Your task to perform on an android device: Open the calendar and show me this week's events Image 0: 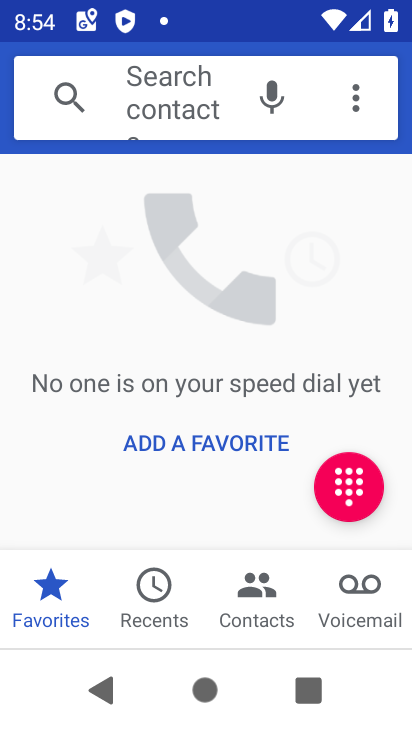
Step 0: press home button
Your task to perform on an android device: Open the calendar and show me this week's events Image 1: 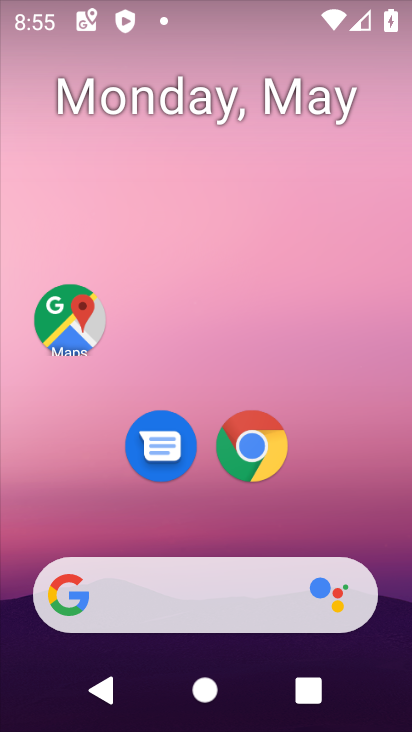
Step 1: drag from (202, 528) to (202, 10)
Your task to perform on an android device: Open the calendar and show me this week's events Image 2: 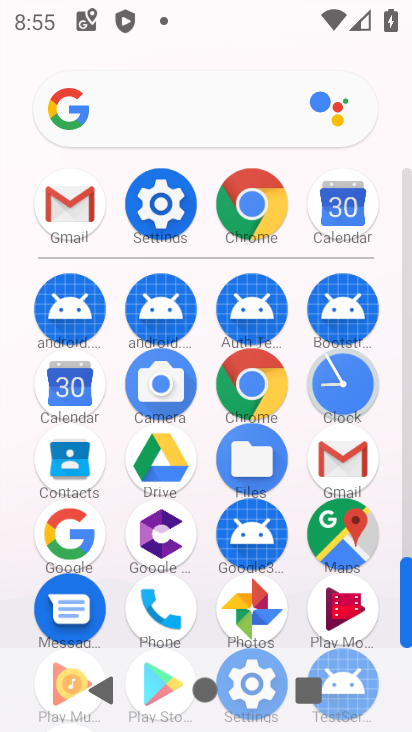
Step 2: click (69, 383)
Your task to perform on an android device: Open the calendar and show me this week's events Image 3: 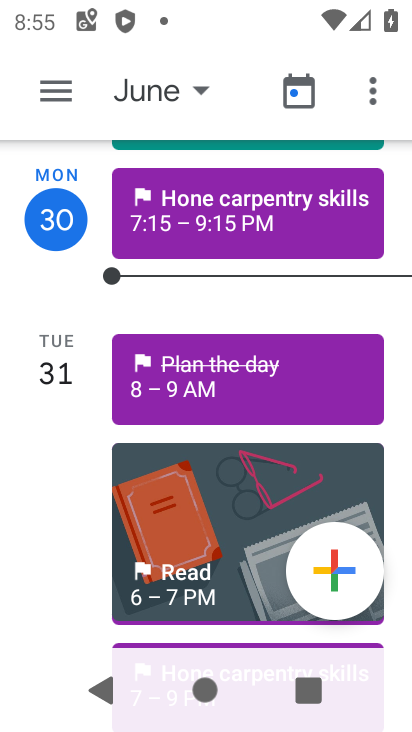
Step 3: click (53, 84)
Your task to perform on an android device: Open the calendar and show me this week's events Image 4: 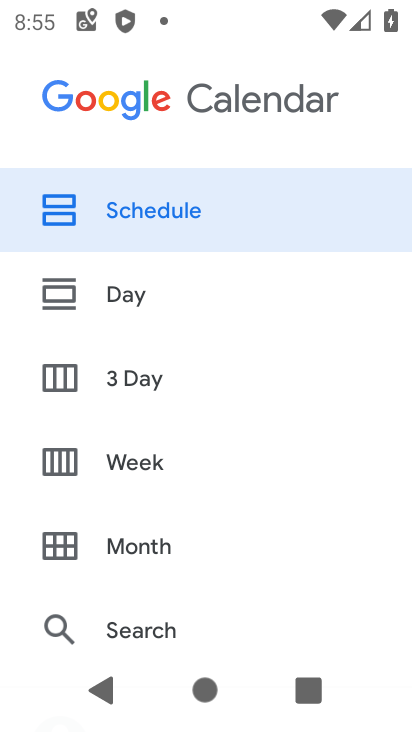
Step 4: drag from (86, 612) to (105, 138)
Your task to perform on an android device: Open the calendar and show me this week's events Image 5: 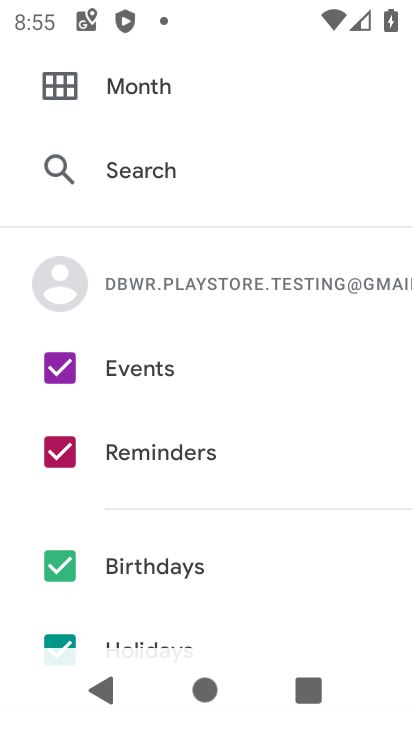
Step 5: drag from (94, 566) to (104, 338)
Your task to perform on an android device: Open the calendar and show me this week's events Image 6: 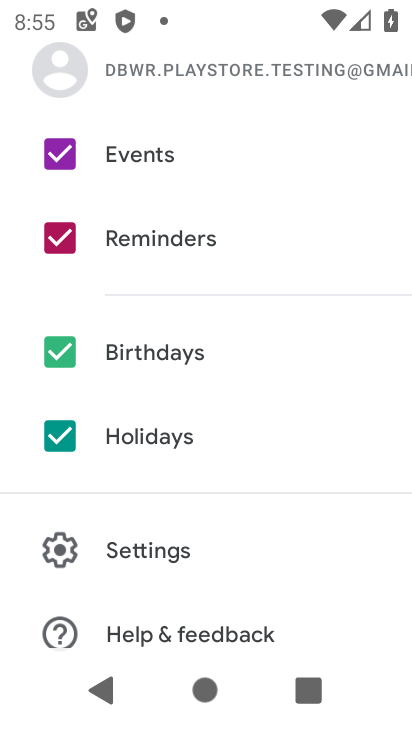
Step 6: click (57, 224)
Your task to perform on an android device: Open the calendar and show me this week's events Image 7: 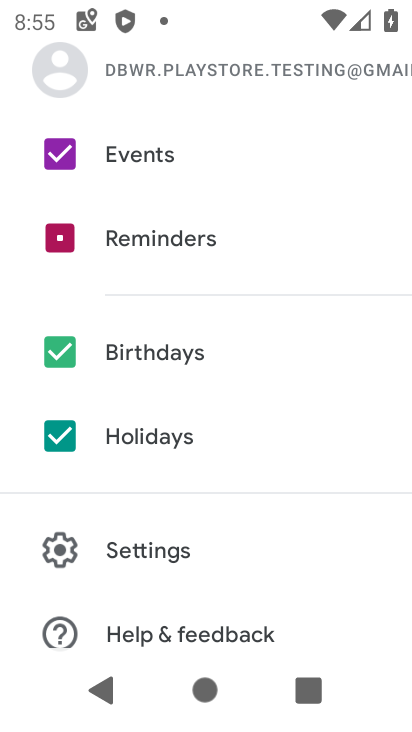
Step 7: click (53, 353)
Your task to perform on an android device: Open the calendar and show me this week's events Image 8: 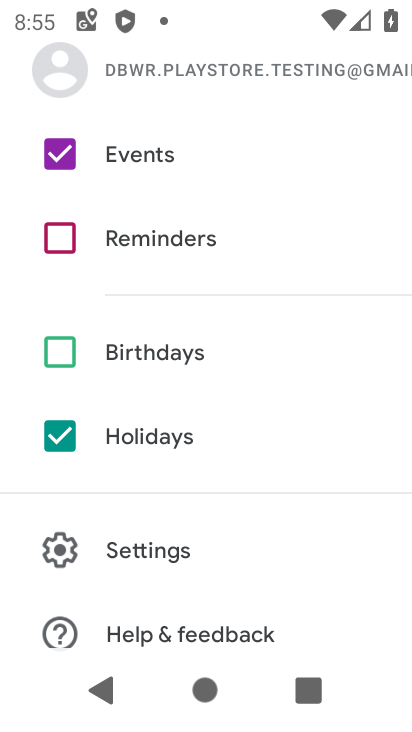
Step 8: click (59, 433)
Your task to perform on an android device: Open the calendar and show me this week's events Image 9: 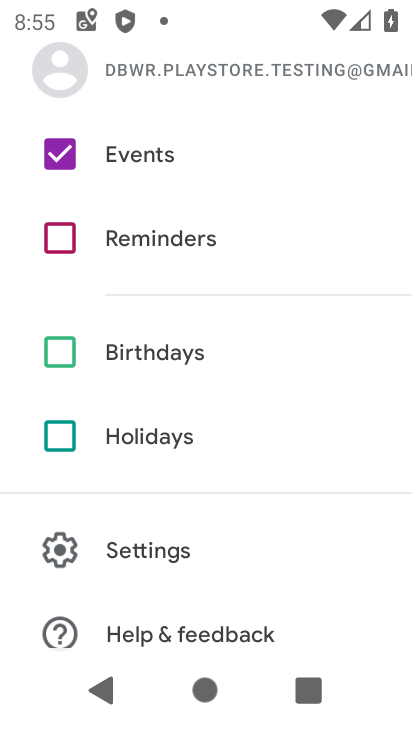
Step 9: drag from (96, 188) to (86, 625)
Your task to perform on an android device: Open the calendar and show me this week's events Image 10: 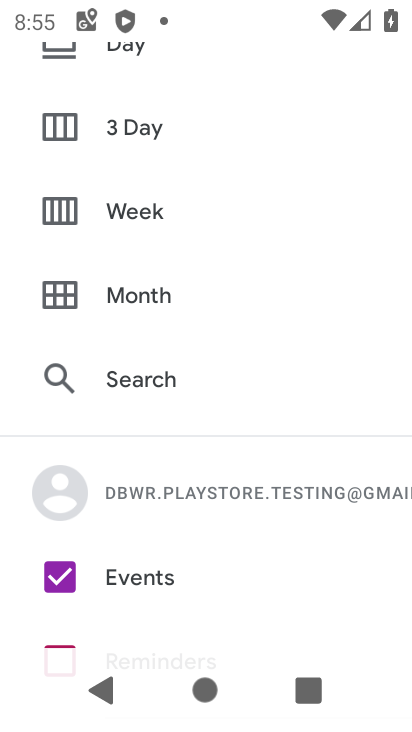
Step 10: drag from (118, 195) to (143, 607)
Your task to perform on an android device: Open the calendar and show me this week's events Image 11: 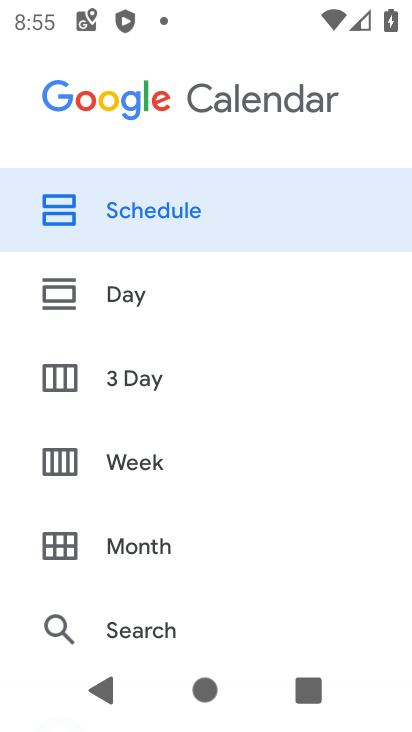
Step 11: click (121, 464)
Your task to perform on an android device: Open the calendar and show me this week's events Image 12: 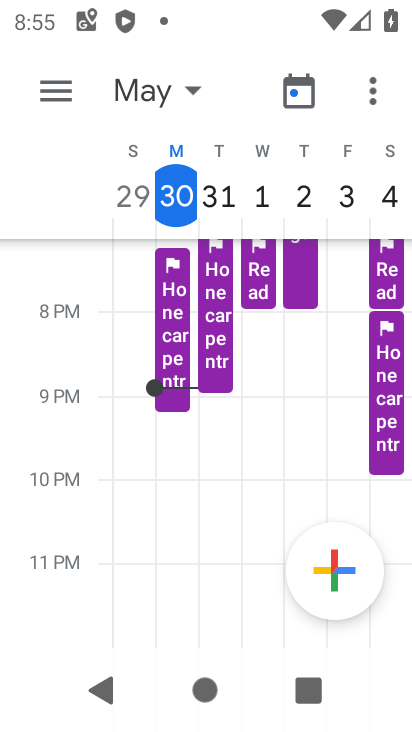
Step 12: click (182, 203)
Your task to perform on an android device: Open the calendar and show me this week's events Image 13: 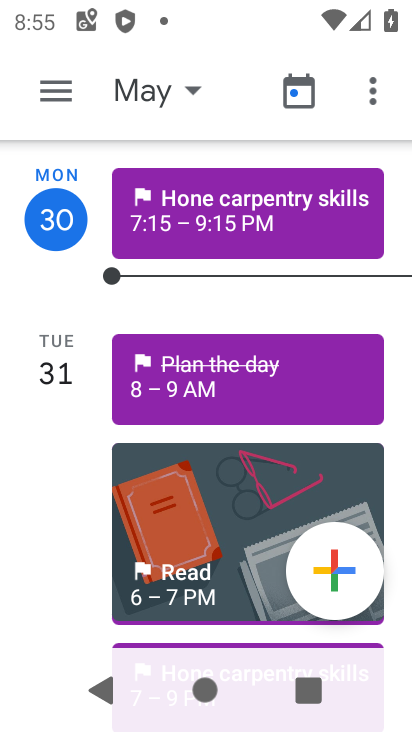
Step 13: task complete